Your task to perform on an android device: Clear the cart on ebay. Add "asus zenbook" to the cart on ebay Image 0: 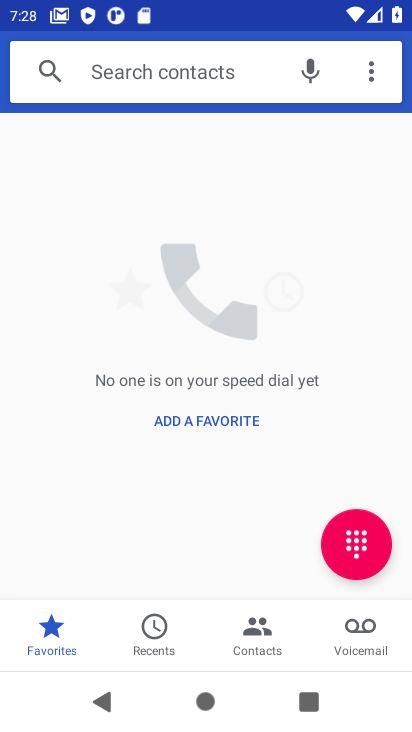
Step 0: press home button
Your task to perform on an android device: Clear the cart on ebay. Add "asus zenbook" to the cart on ebay Image 1: 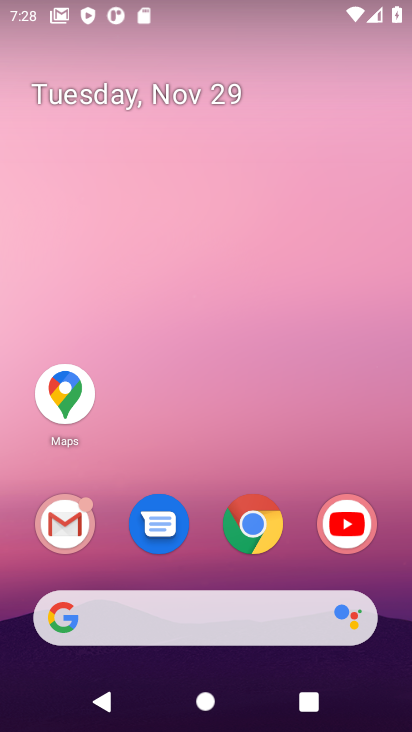
Step 1: click (260, 529)
Your task to perform on an android device: Clear the cart on ebay. Add "asus zenbook" to the cart on ebay Image 2: 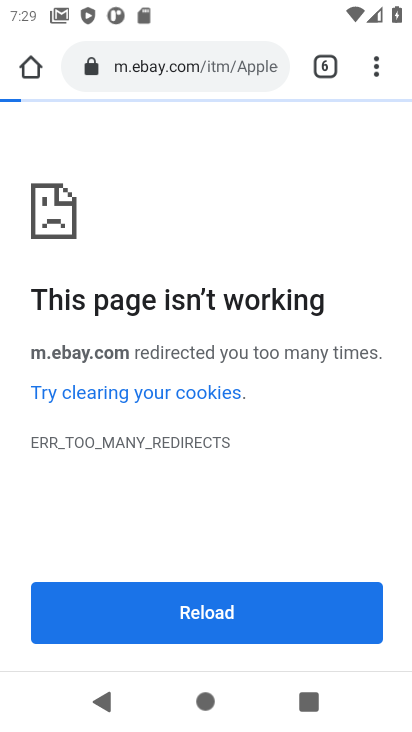
Step 2: press back button
Your task to perform on an android device: Clear the cart on ebay. Add "asus zenbook" to the cart on ebay Image 3: 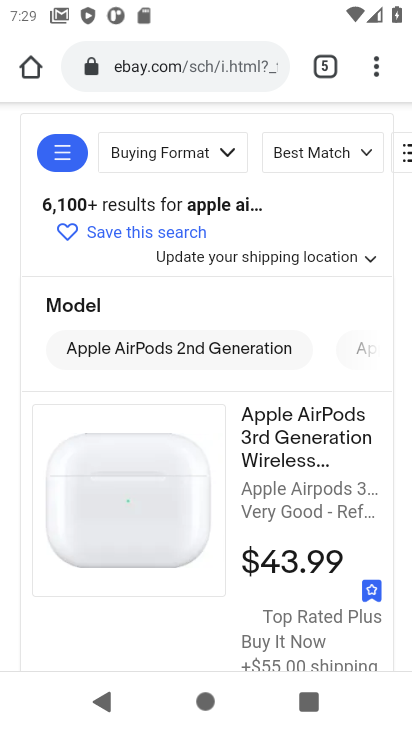
Step 3: drag from (336, 270) to (340, 449)
Your task to perform on an android device: Clear the cart on ebay. Add "asus zenbook" to the cart on ebay Image 4: 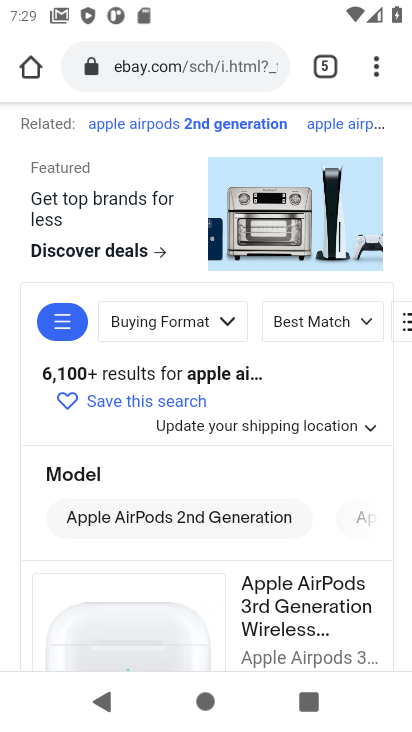
Step 4: drag from (313, 231) to (289, 414)
Your task to perform on an android device: Clear the cart on ebay. Add "asus zenbook" to the cart on ebay Image 5: 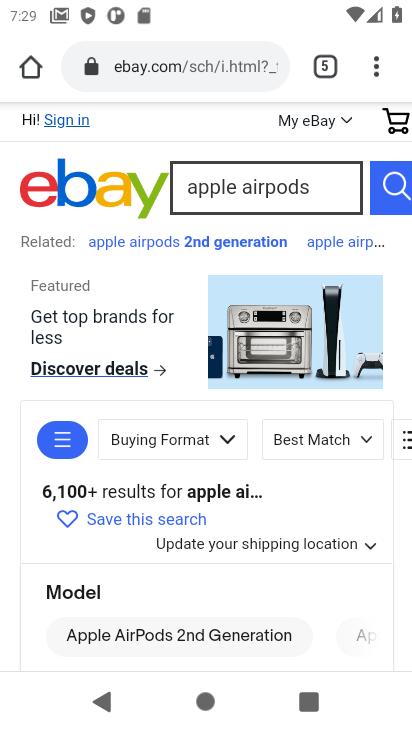
Step 5: click (401, 128)
Your task to perform on an android device: Clear the cart on ebay. Add "asus zenbook" to the cart on ebay Image 6: 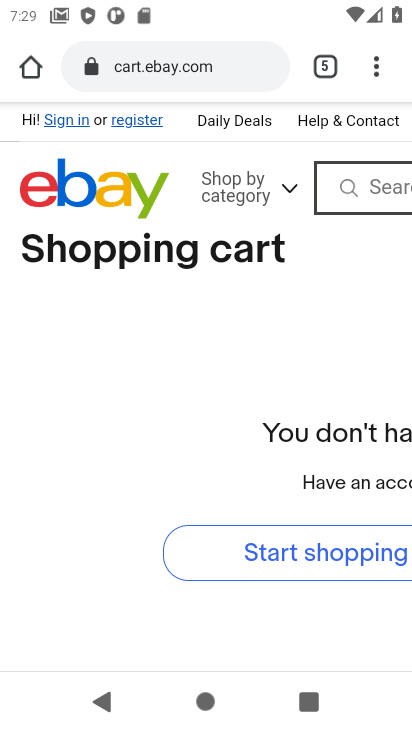
Step 6: click (371, 187)
Your task to perform on an android device: Clear the cart on ebay. Add "asus zenbook" to the cart on ebay Image 7: 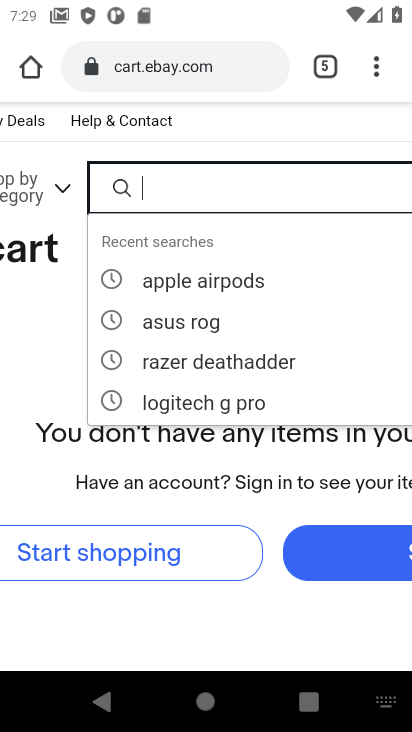
Step 7: type "asus zenbook"
Your task to perform on an android device: Clear the cart on ebay. Add "asus zenbook" to the cart on ebay Image 8: 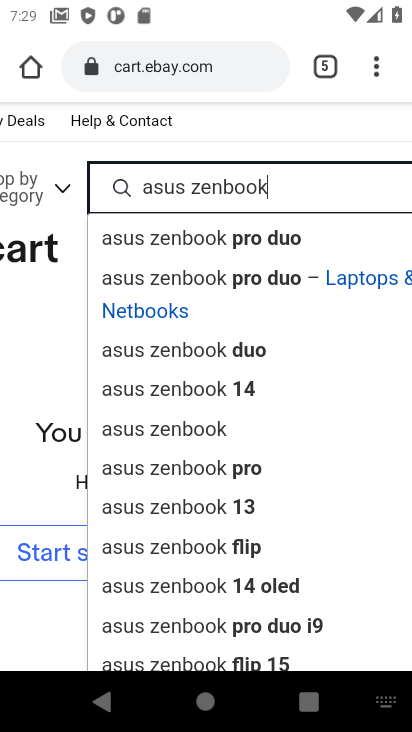
Step 8: click (189, 430)
Your task to perform on an android device: Clear the cart on ebay. Add "asus zenbook" to the cart on ebay Image 9: 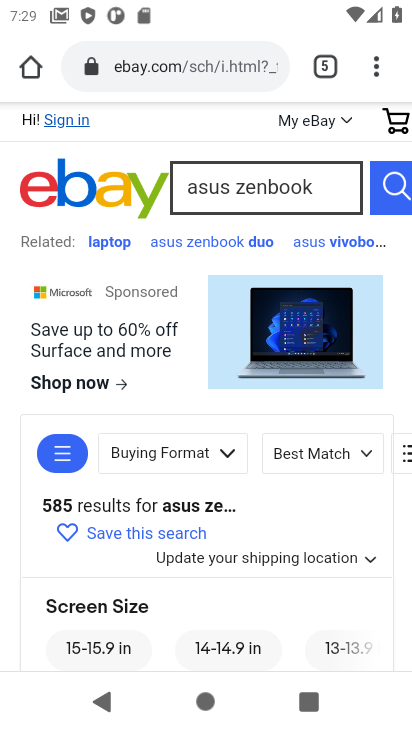
Step 9: drag from (324, 589) to (279, 171)
Your task to perform on an android device: Clear the cart on ebay. Add "asus zenbook" to the cart on ebay Image 10: 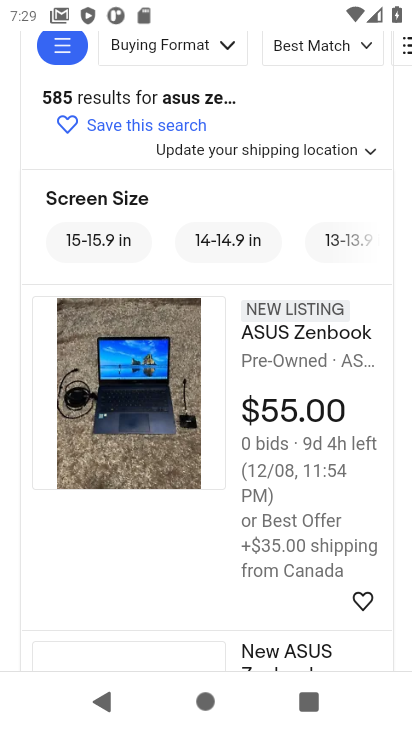
Step 10: click (268, 347)
Your task to perform on an android device: Clear the cart on ebay. Add "asus zenbook" to the cart on ebay Image 11: 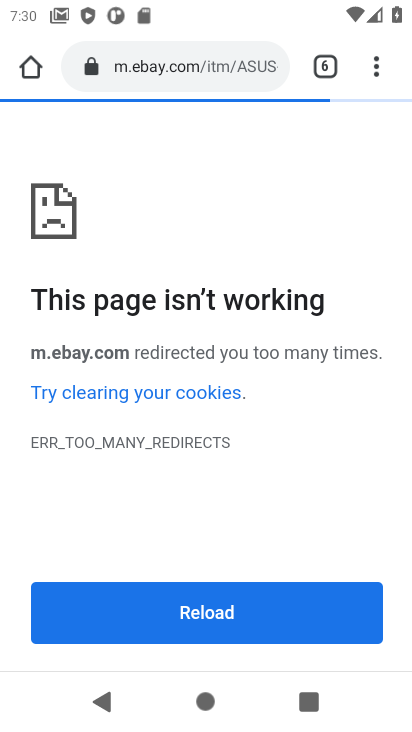
Step 11: task complete